Your task to perform on an android device: open sync settings in chrome Image 0: 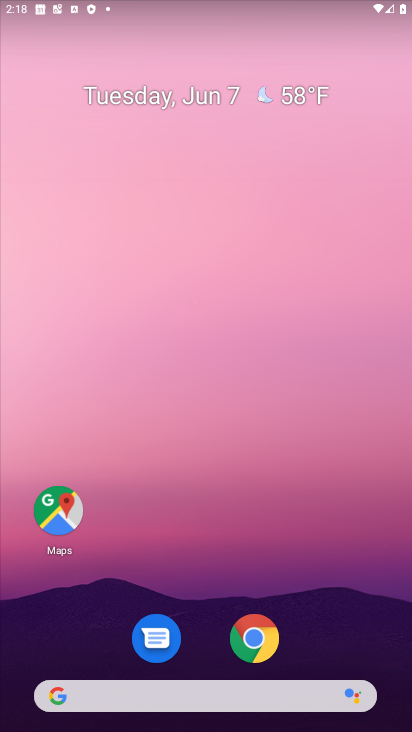
Step 0: drag from (207, 674) to (222, 389)
Your task to perform on an android device: open sync settings in chrome Image 1: 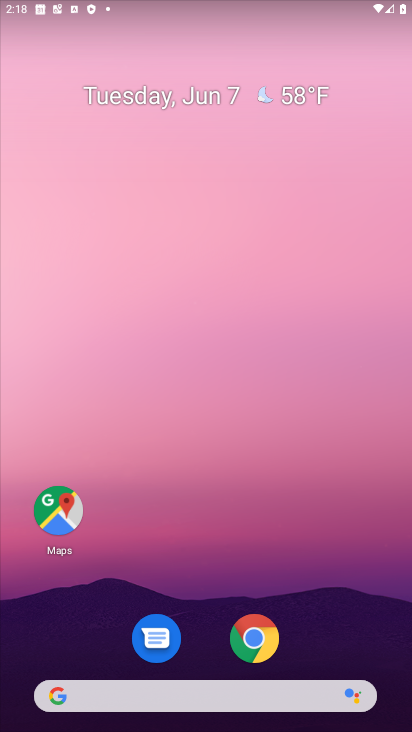
Step 1: drag from (229, 604) to (270, 238)
Your task to perform on an android device: open sync settings in chrome Image 2: 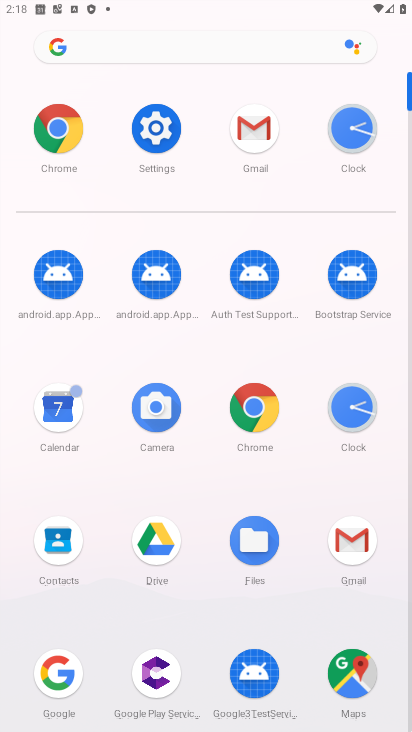
Step 2: click (58, 121)
Your task to perform on an android device: open sync settings in chrome Image 3: 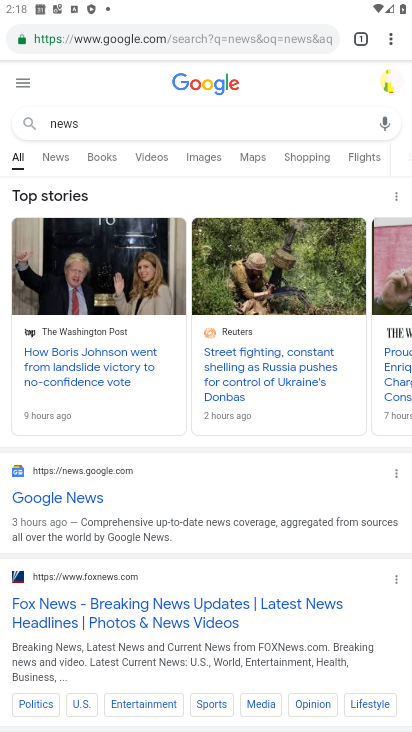
Step 3: click (393, 34)
Your task to perform on an android device: open sync settings in chrome Image 4: 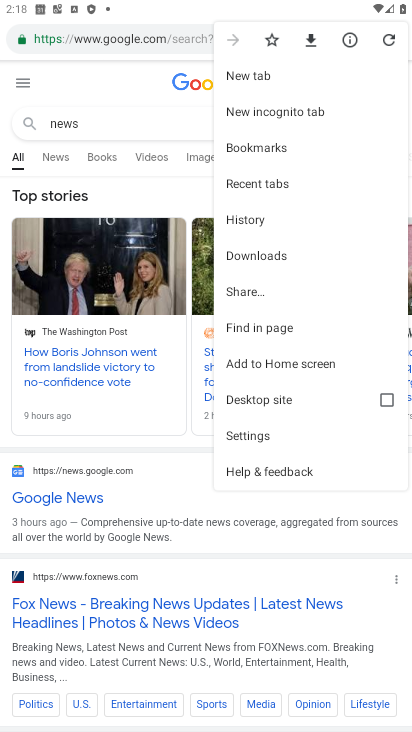
Step 4: click (264, 440)
Your task to perform on an android device: open sync settings in chrome Image 5: 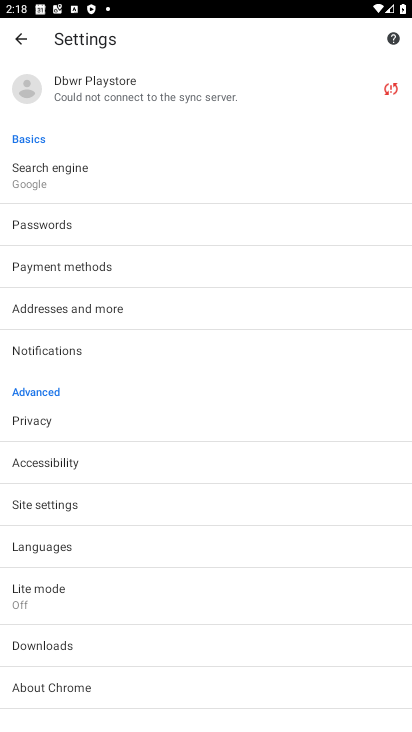
Step 5: task complete